Your task to perform on an android device: turn on bluetooth scan Image 0: 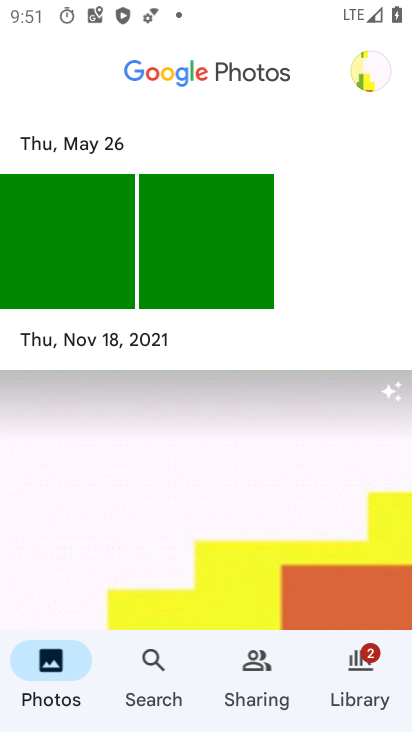
Step 0: press home button
Your task to perform on an android device: turn on bluetooth scan Image 1: 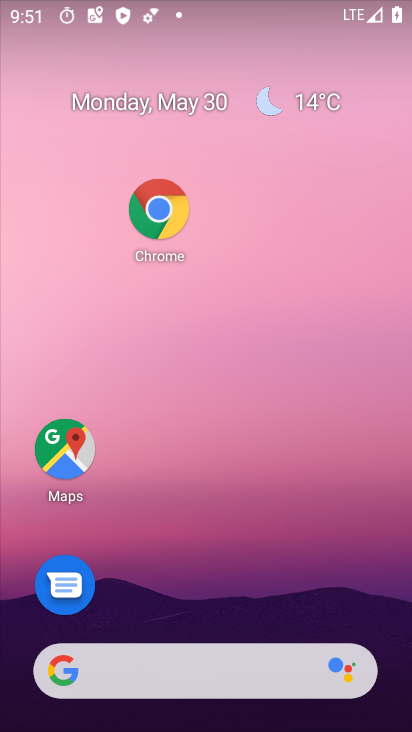
Step 1: drag from (193, 589) to (252, 15)
Your task to perform on an android device: turn on bluetooth scan Image 2: 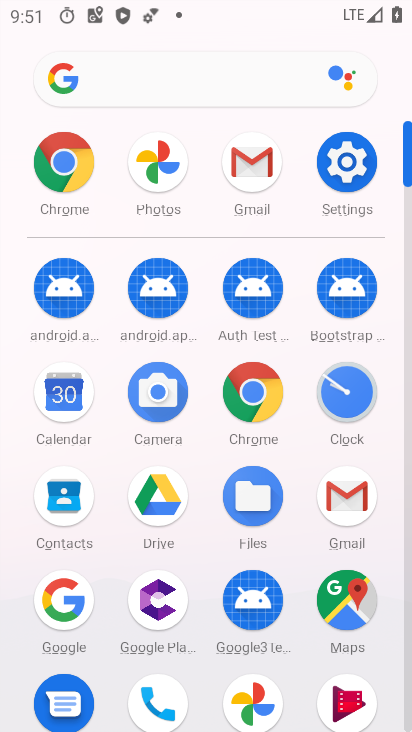
Step 2: click (341, 179)
Your task to perform on an android device: turn on bluetooth scan Image 3: 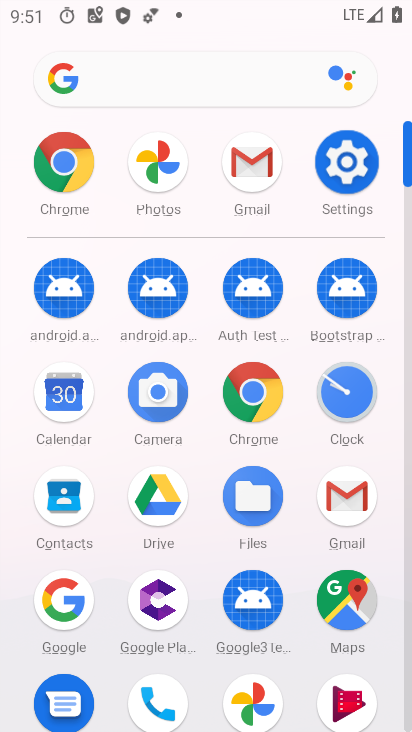
Step 3: click (341, 179)
Your task to perform on an android device: turn on bluetooth scan Image 4: 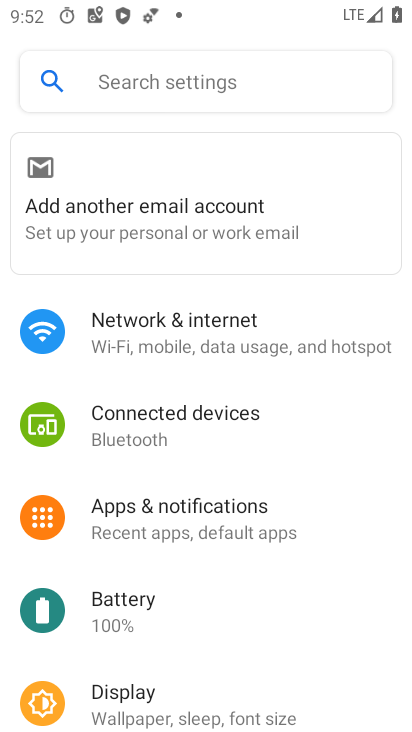
Step 4: drag from (233, 628) to (402, 133)
Your task to perform on an android device: turn on bluetooth scan Image 5: 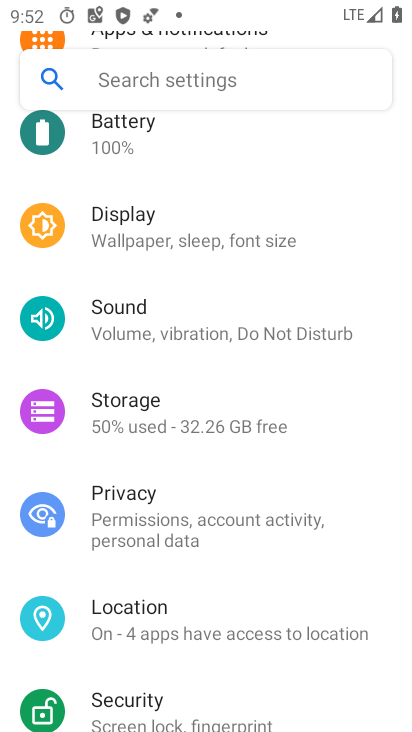
Step 5: click (171, 618)
Your task to perform on an android device: turn on bluetooth scan Image 6: 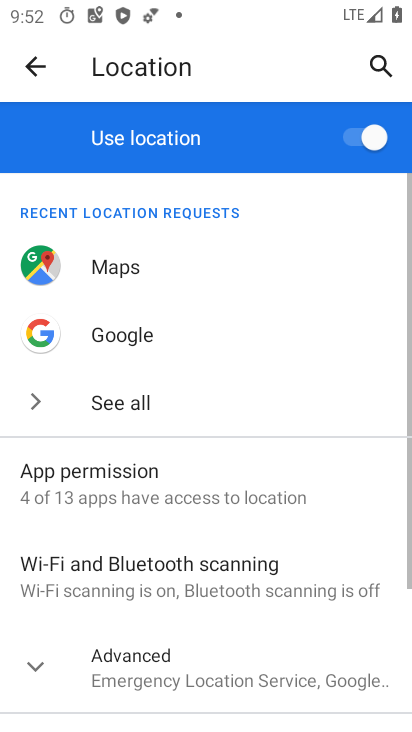
Step 6: click (253, 583)
Your task to perform on an android device: turn on bluetooth scan Image 7: 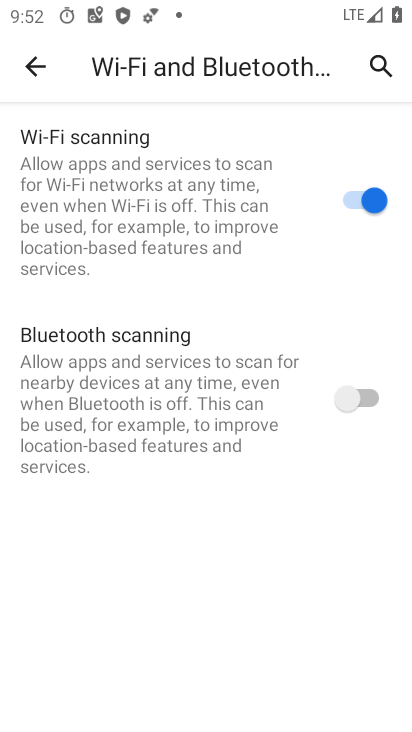
Step 7: click (249, 395)
Your task to perform on an android device: turn on bluetooth scan Image 8: 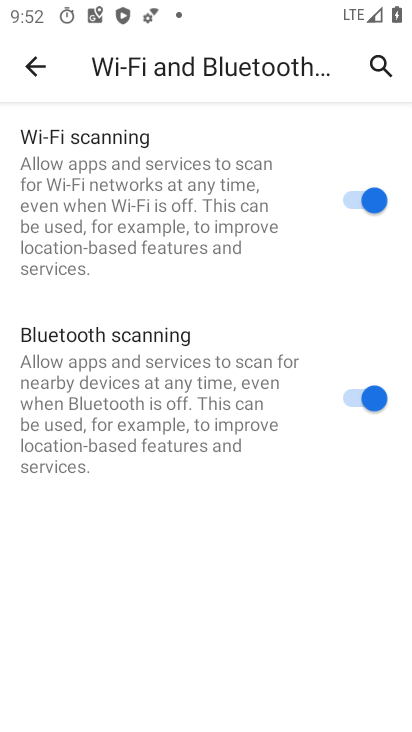
Step 8: task complete